Your task to perform on an android device: Show me recent news Image 0: 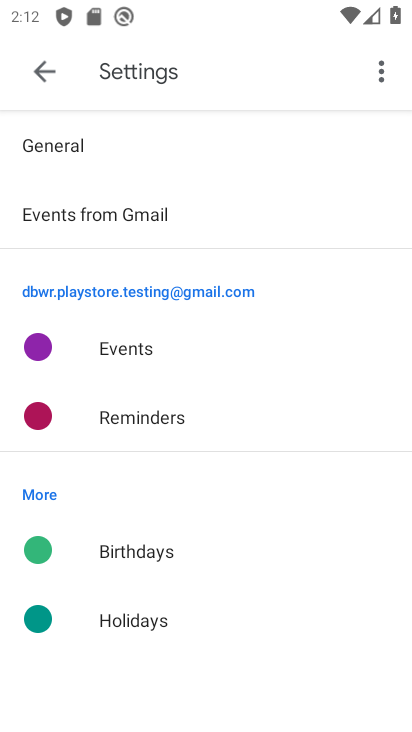
Step 0: press home button
Your task to perform on an android device: Show me recent news Image 1: 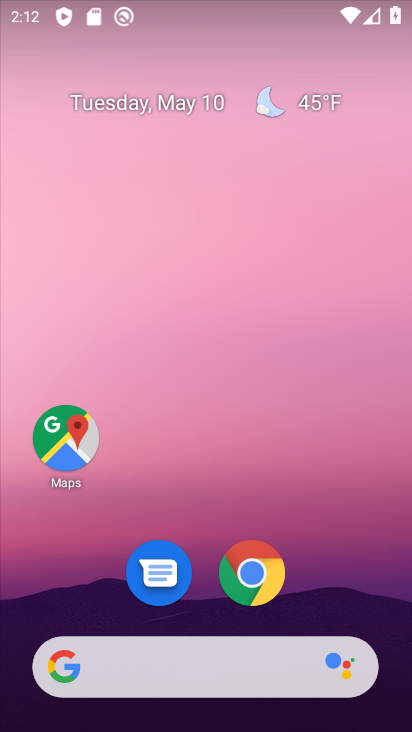
Step 1: drag from (210, 608) to (231, 279)
Your task to perform on an android device: Show me recent news Image 2: 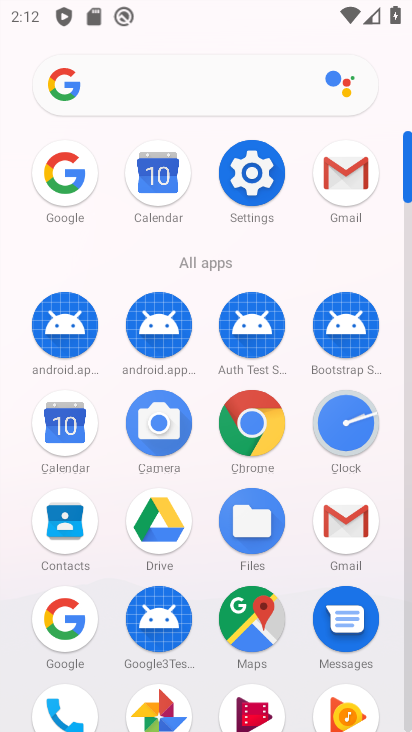
Step 2: click (70, 611)
Your task to perform on an android device: Show me recent news Image 3: 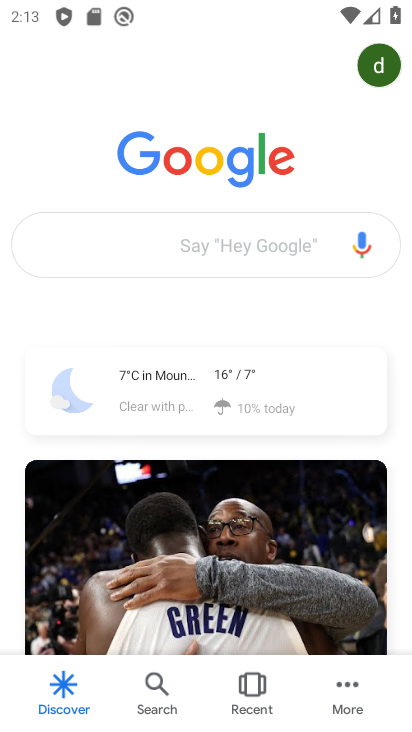
Step 3: click (223, 221)
Your task to perform on an android device: Show me recent news Image 4: 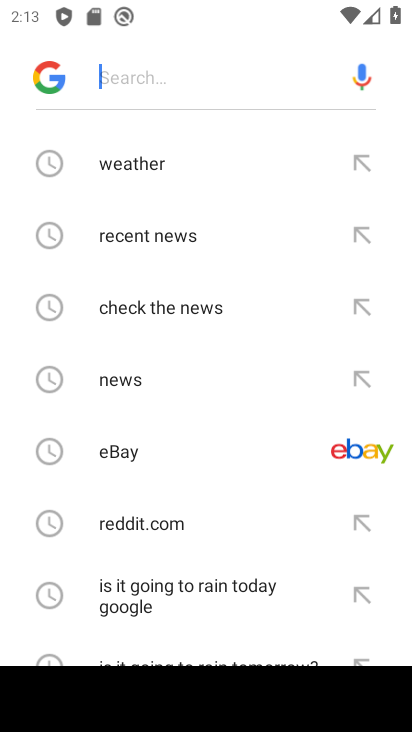
Step 4: type "recent news"
Your task to perform on an android device: Show me recent news Image 5: 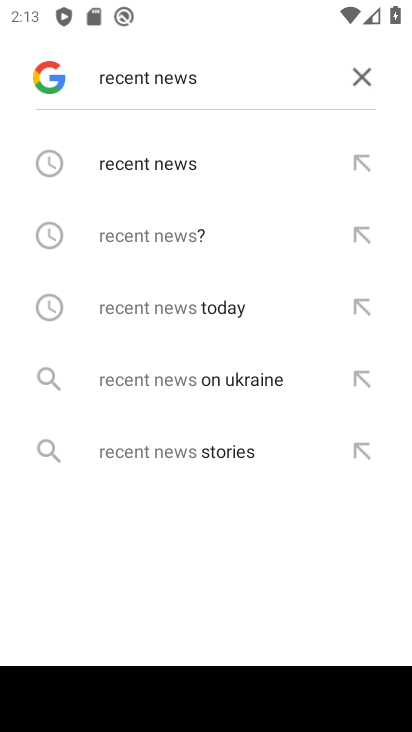
Step 5: click (181, 167)
Your task to perform on an android device: Show me recent news Image 6: 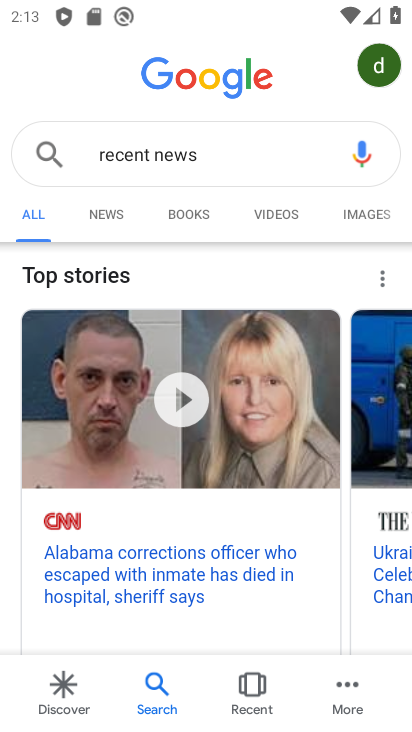
Step 6: drag from (205, 530) to (250, 344)
Your task to perform on an android device: Show me recent news Image 7: 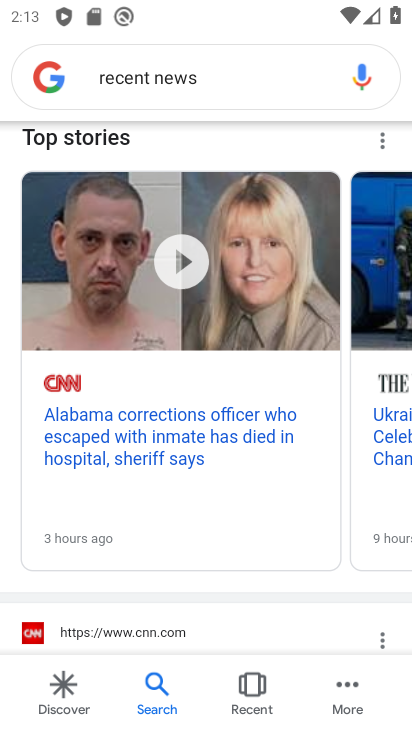
Step 7: drag from (245, 586) to (271, 430)
Your task to perform on an android device: Show me recent news Image 8: 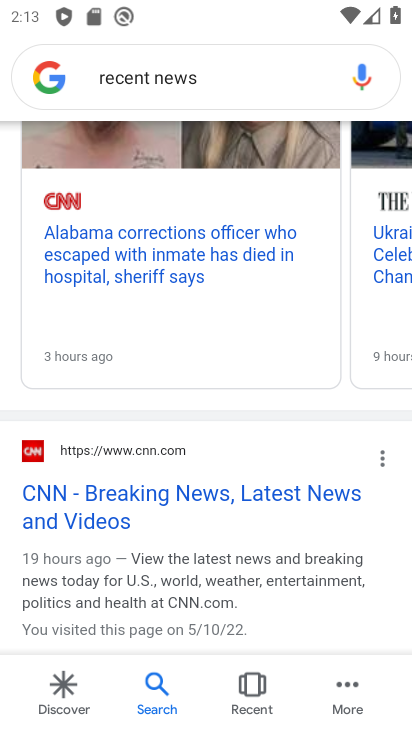
Step 8: drag from (284, 412) to (305, 584)
Your task to perform on an android device: Show me recent news Image 9: 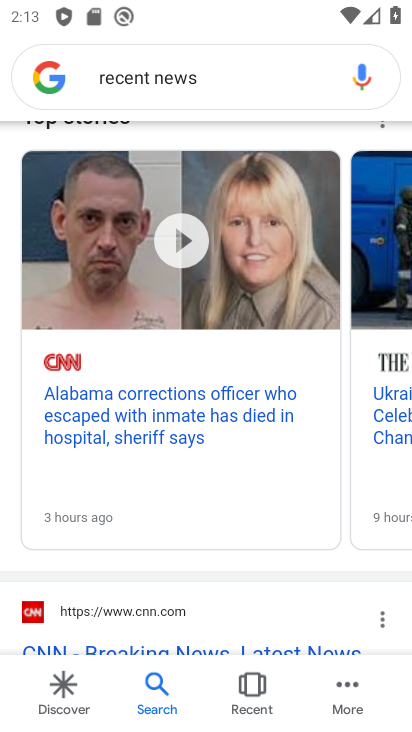
Step 9: drag from (238, 227) to (278, 396)
Your task to perform on an android device: Show me recent news Image 10: 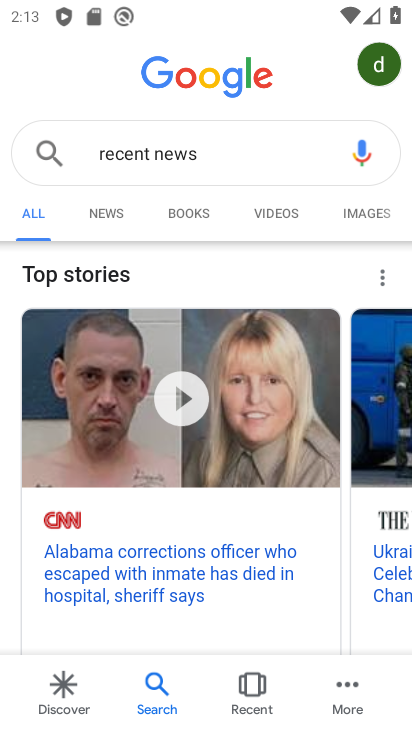
Step 10: click (127, 210)
Your task to perform on an android device: Show me recent news Image 11: 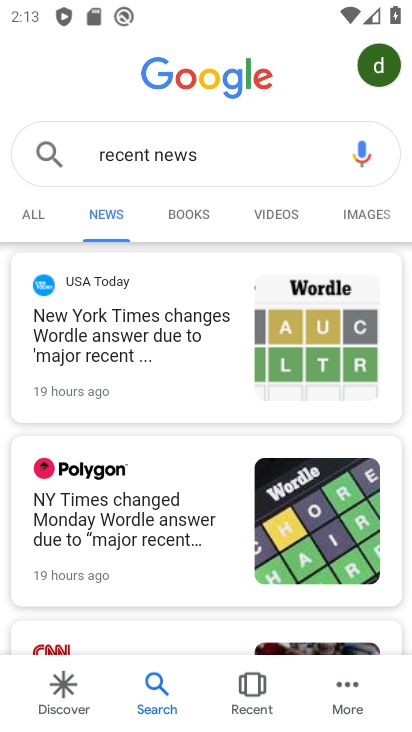
Step 11: task complete